Your task to perform on an android device: Open calendar and show me the third week of next month Image 0: 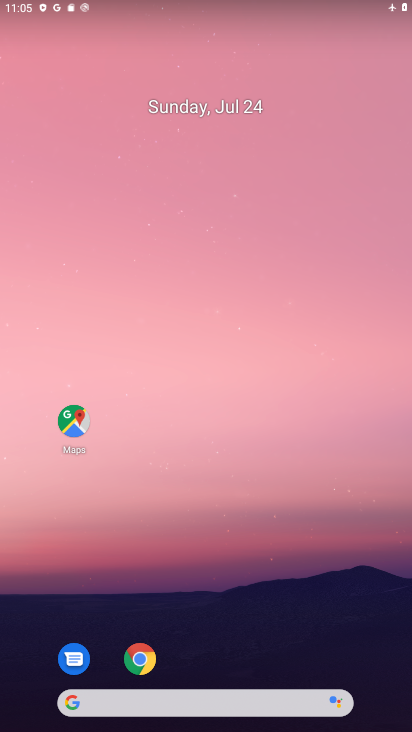
Step 0: drag from (283, 662) to (213, 143)
Your task to perform on an android device: Open calendar and show me the third week of next month Image 1: 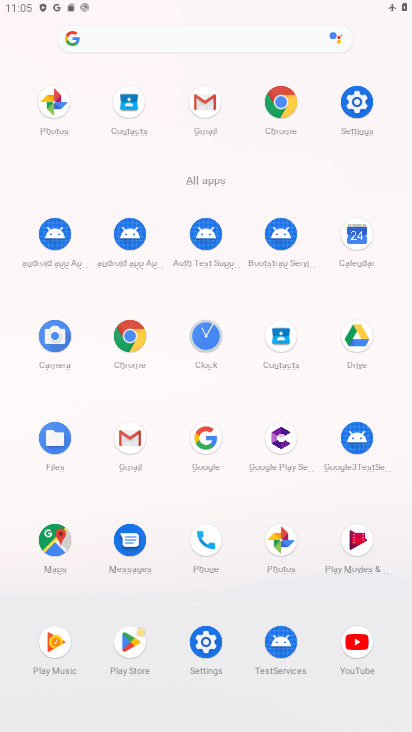
Step 1: click (372, 228)
Your task to perform on an android device: Open calendar and show me the third week of next month Image 2: 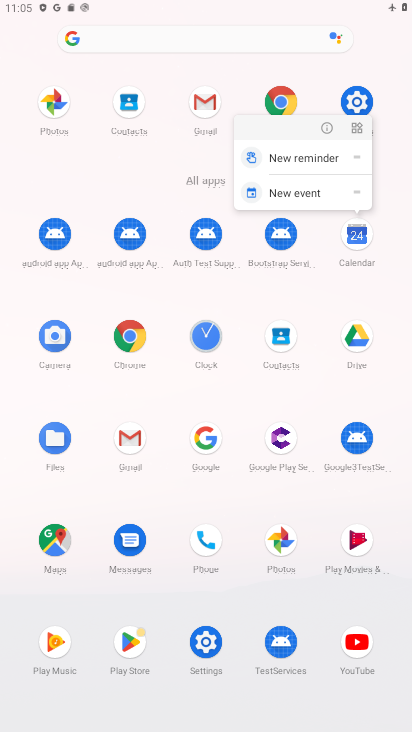
Step 2: click (366, 226)
Your task to perform on an android device: Open calendar and show me the third week of next month Image 3: 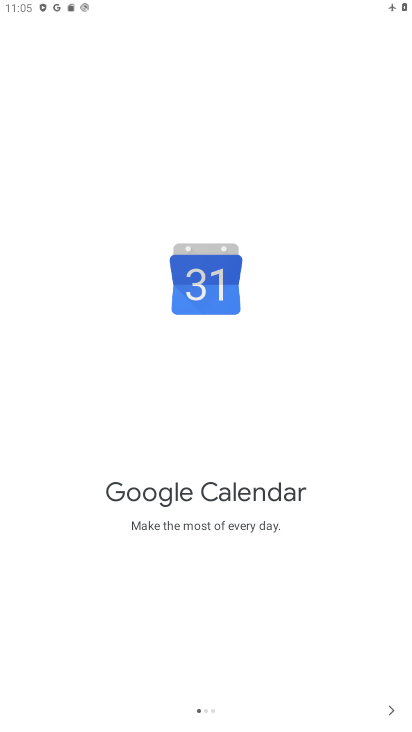
Step 3: click (397, 708)
Your task to perform on an android device: Open calendar and show me the third week of next month Image 4: 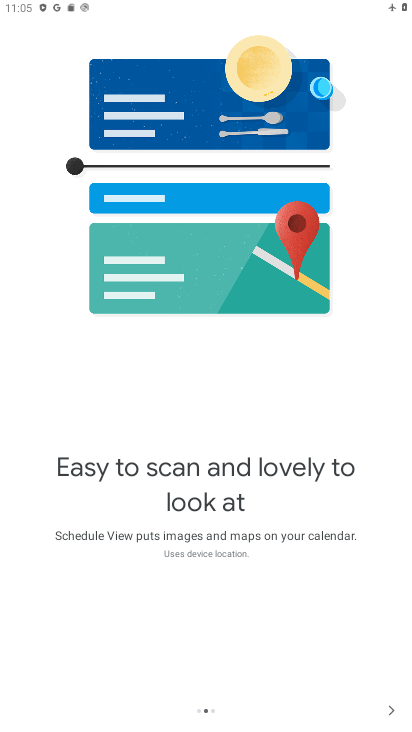
Step 4: click (397, 708)
Your task to perform on an android device: Open calendar and show me the third week of next month Image 5: 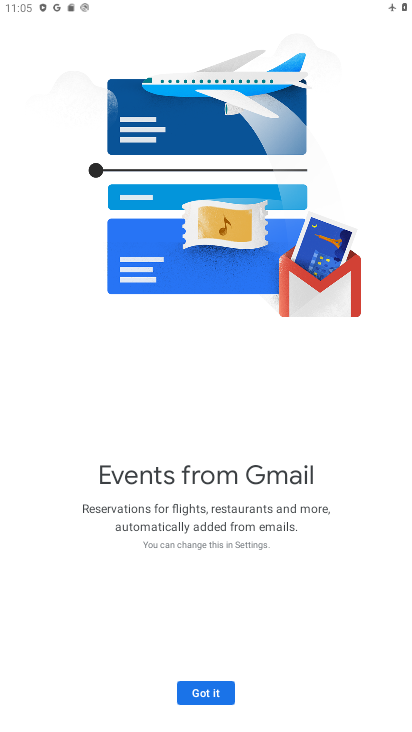
Step 5: click (204, 698)
Your task to perform on an android device: Open calendar and show me the third week of next month Image 6: 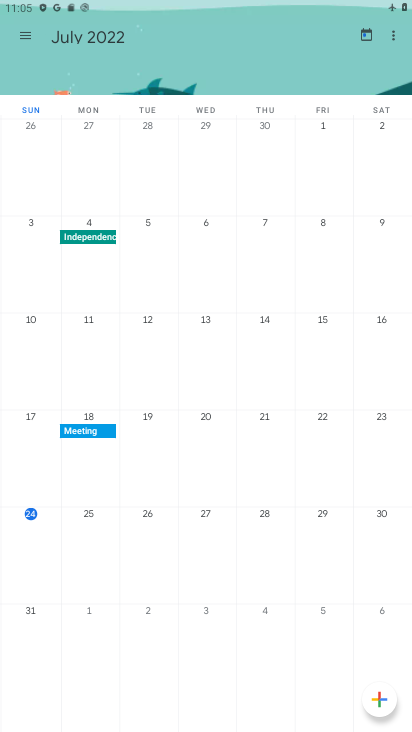
Step 6: click (20, 34)
Your task to perform on an android device: Open calendar and show me the third week of next month Image 7: 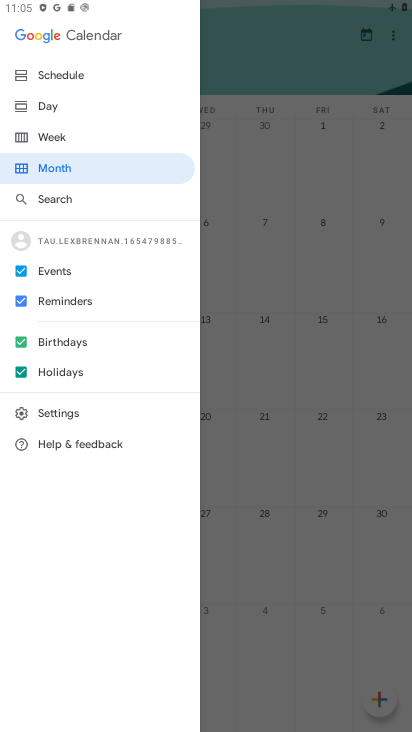
Step 7: click (71, 139)
Your task to perform on an android device: Open calendar and show me the third week of next month Image 8: 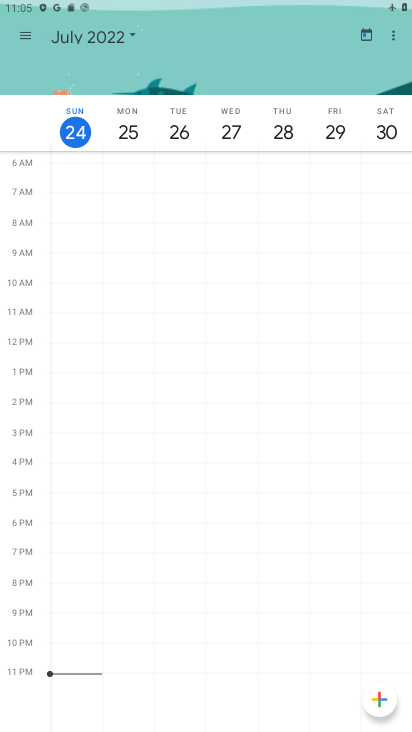
Step 8: click (103, 42)
Your task to perform on an android device: Open calendar and show me the third week of next month Image 9: 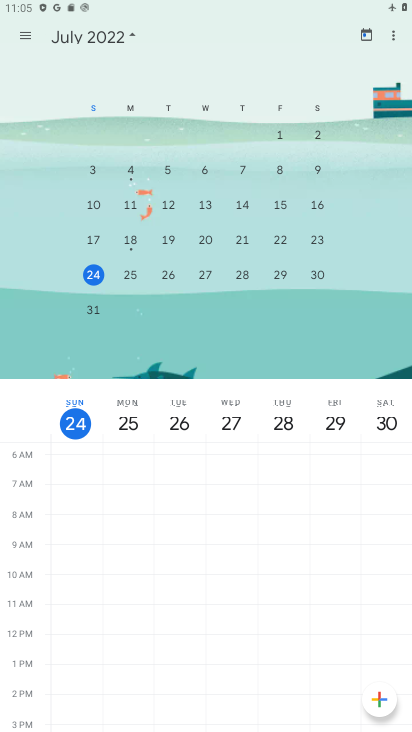
Step 9: drag from (351, 221) to (101, 209)
Your task to perform on an android device: Open calendar and show me the third week of next month Image 10: 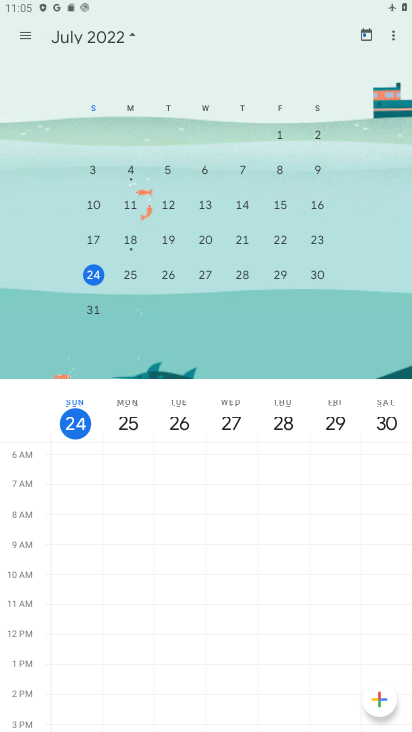
Step 10: drag from (355, 212) to (54, 192)
Your task to perform on an android device: Open calendar and show me the third week of next month Image 11: 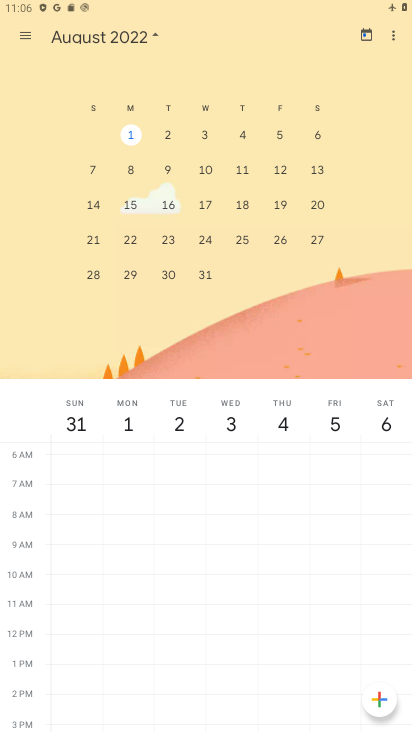
Step 11: click (208, 206)
Your task to perform on an android device: Open calendar and show me the third week of next month Image 12: 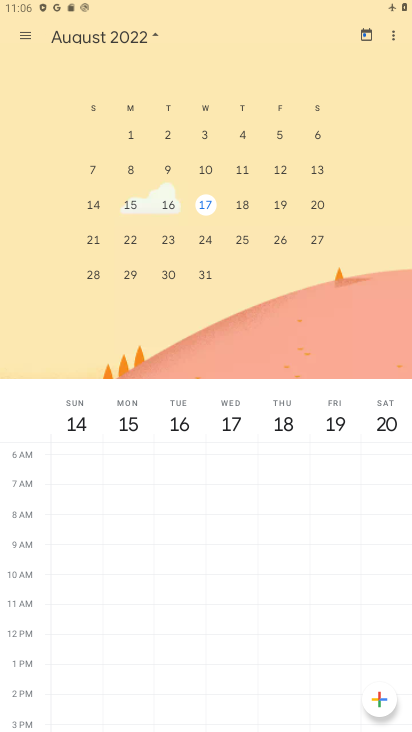
Step 12: task complete